Your task to perform on an android device: Go to Amazon Image 0: 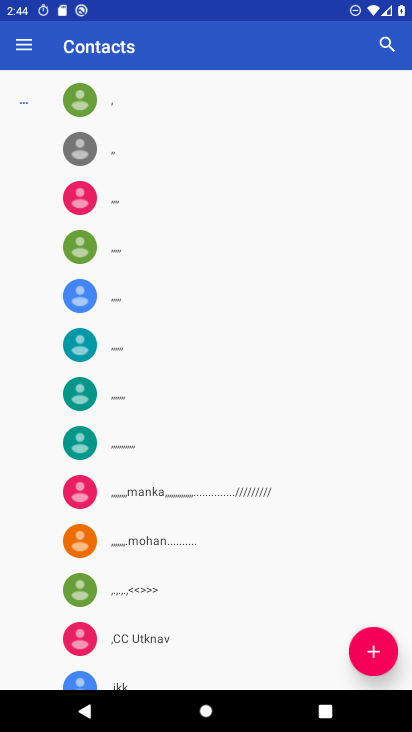
Step 0: press home button
Your task to perform on an android device: Go to Amazon Image 1: 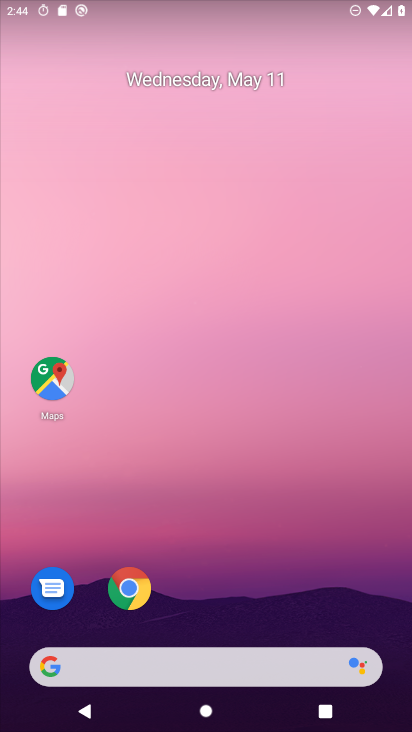
Step 1: drag from (257, 562) to (265, 24)
Your task to perform on an android device: Go to Amazon Image 2: 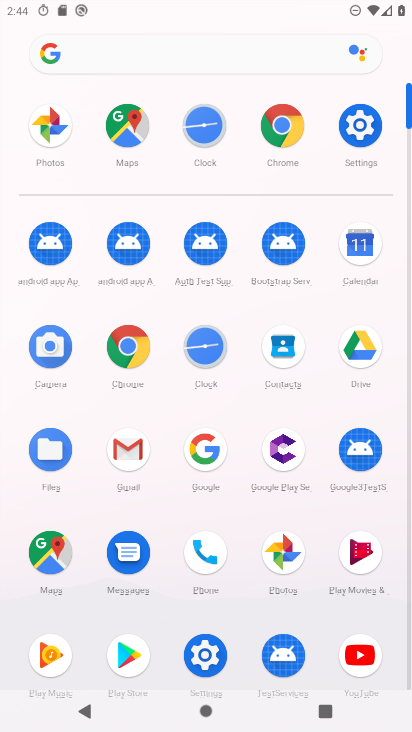
Step 2: drag from (255, 545) to (271, 89)
Your task to perform on an android device: Go to Amazon Image 3: 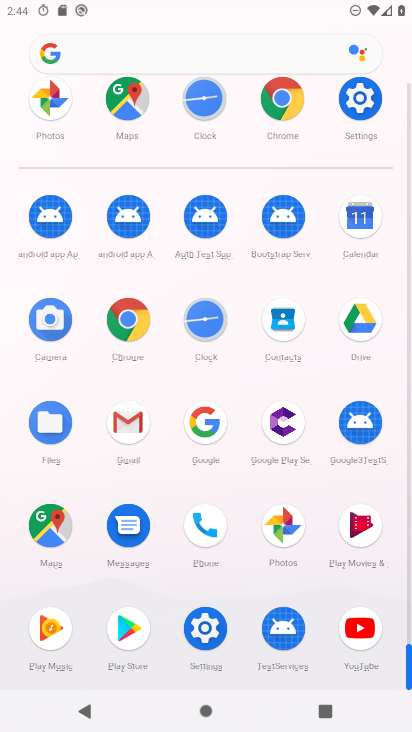
Step 3: click (127, 344)
Your task to perform on an android device: Go to Amazon Image 4: 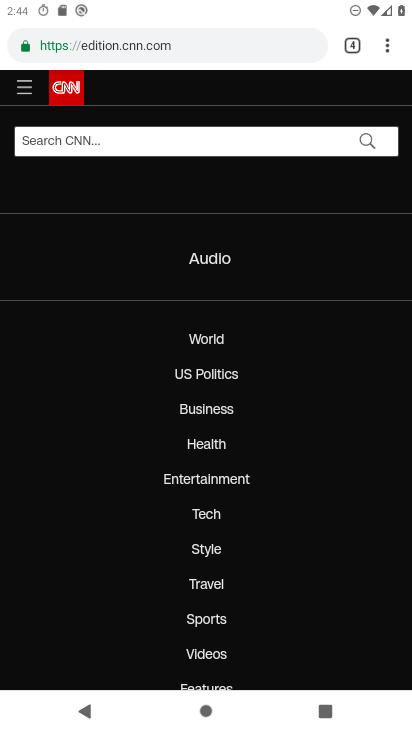
Step 4: drag from (387, 39) to (236, 145)
Your task to perform on an android device: Go to Amazon Image 5: 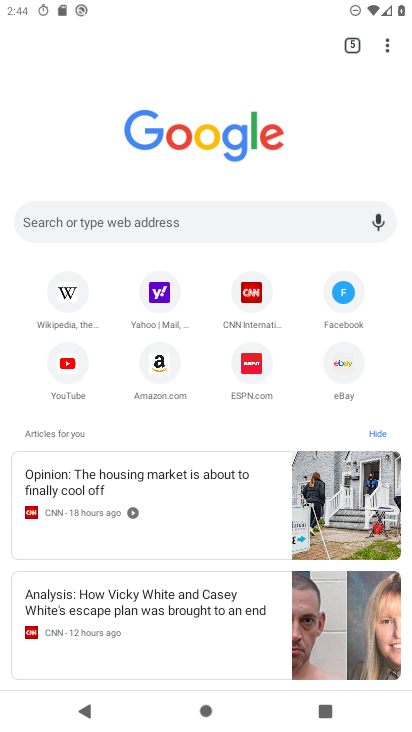
Step 5: click (155, 360)
Your task to perform on an android device: Go to Amazon Image 6: 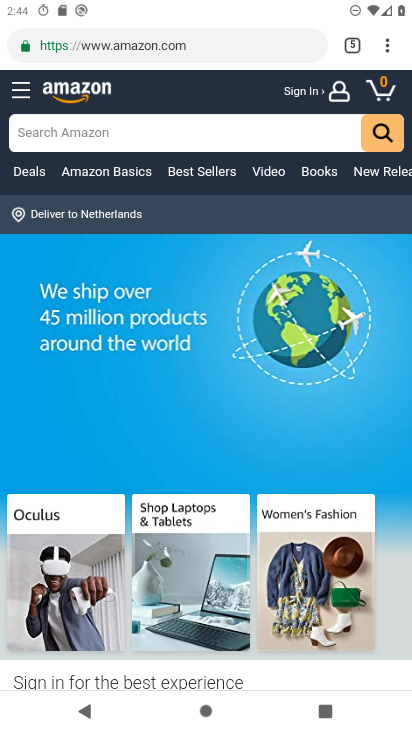
Step 6: task complete